Your task to perform on an android device: Is it going to rain today? Image 0: 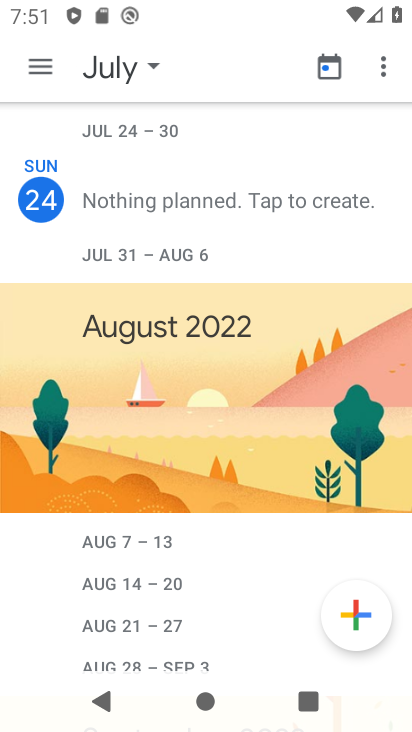
Step 0: press home button
Your task to perform on an android device: Is it going to rain today? Image 1: 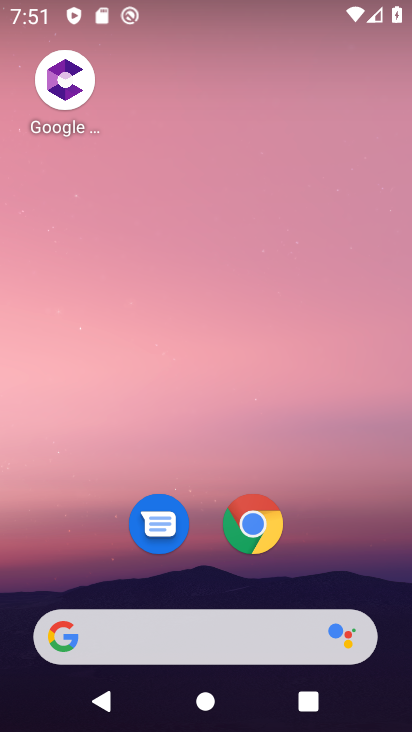
Step 1: press home button
Your task to perform on an android device: Is it going to rain today? Image 2: 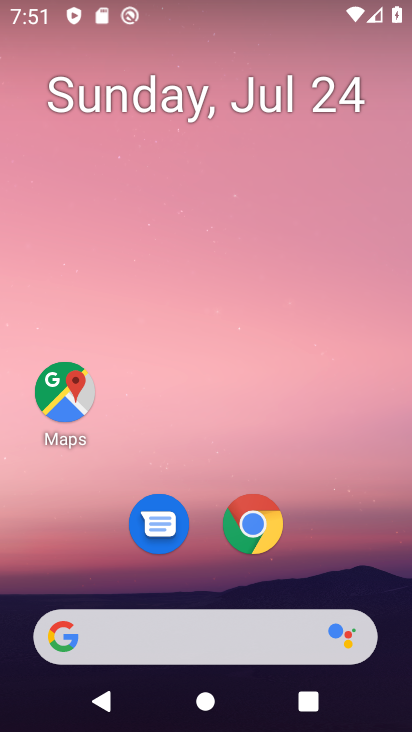
Step 2: click (160, 628)
Your task to perform on an android device: Is it going to rain today? Image 3: 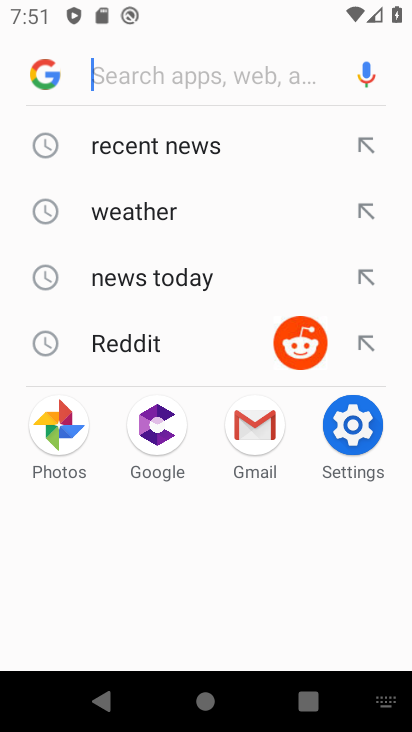
Step 3: click (151, 215)
Your task to perform on an android device: Is it going to rain today? Image 4: 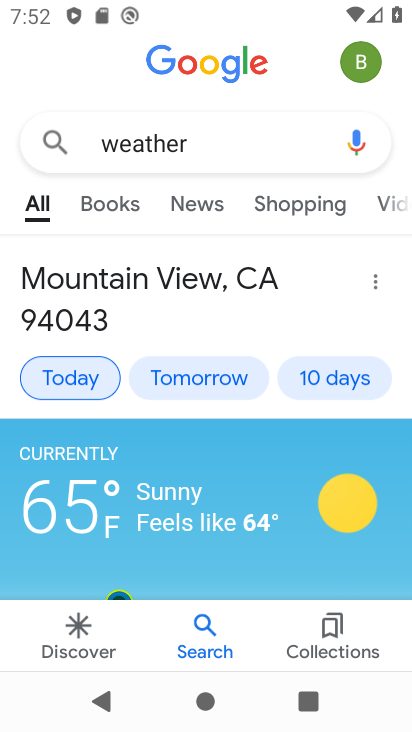
Step 4: click (302, 195)
Your task to perform on an android device: Is it going to rain today? Image 5: 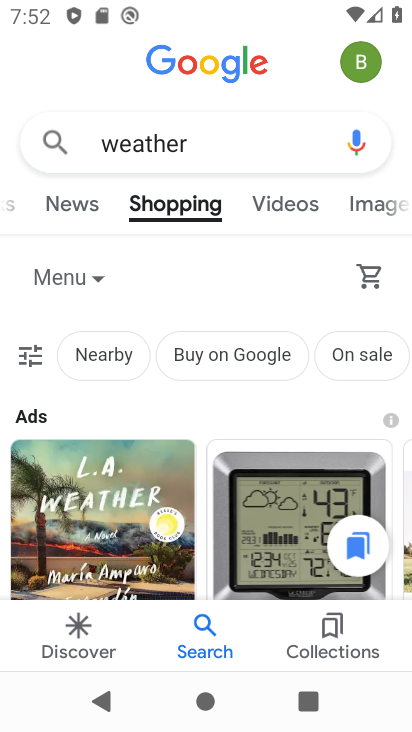
Step 5: task complete